Your task to perform on an android device: refresh tabs in the chrome app Image 0: 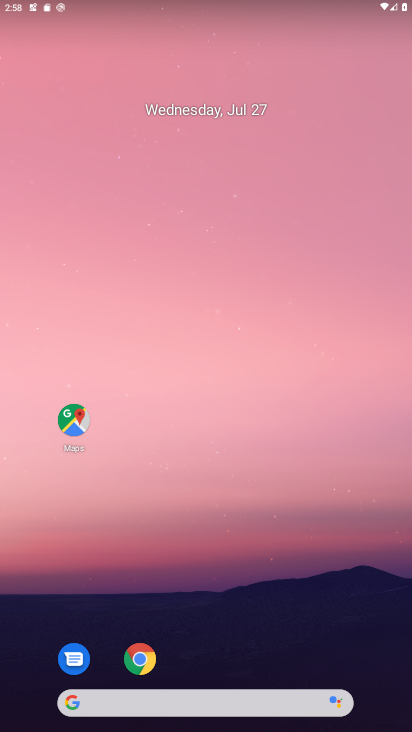
Step 0: drag from (290, 582) to (381, 62)
Your task to perform on an android device: refresh tabs in the chrome app Image 1: 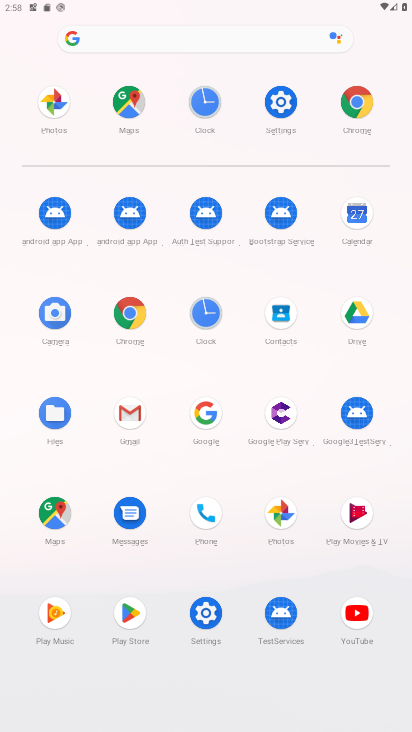
Step 1: click (354, 109)
Your task to perform on an android device: refresh tabs in the chrome app Image 2: 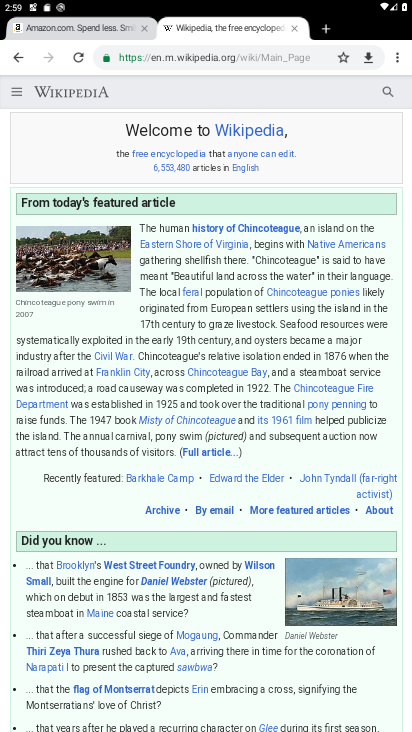
Step 2: drag from (397, 64) to (79, 56)
Your task to perform on an android device: refresh tabs in the chrome app Image 3: 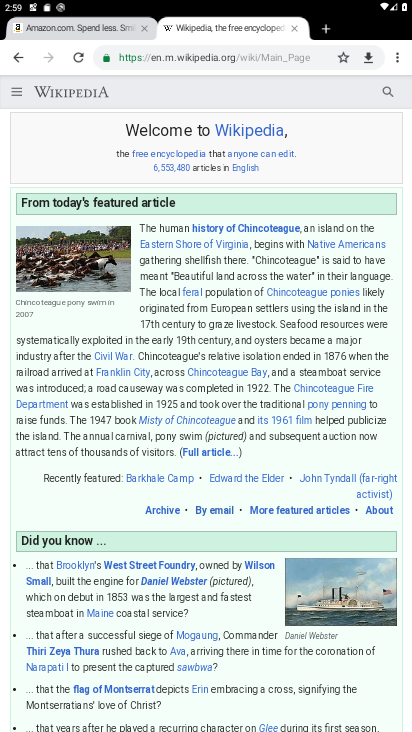
Step 3: click (79, 55)
Your task to perform on an android device: refresh tabs in the chrome app Image 4: 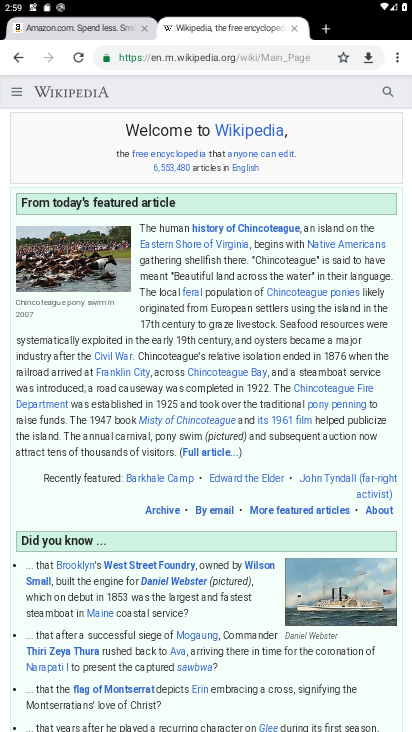
Step 4: task complete